Your task to perform on an android device: Turn off the flashlight Image 0: 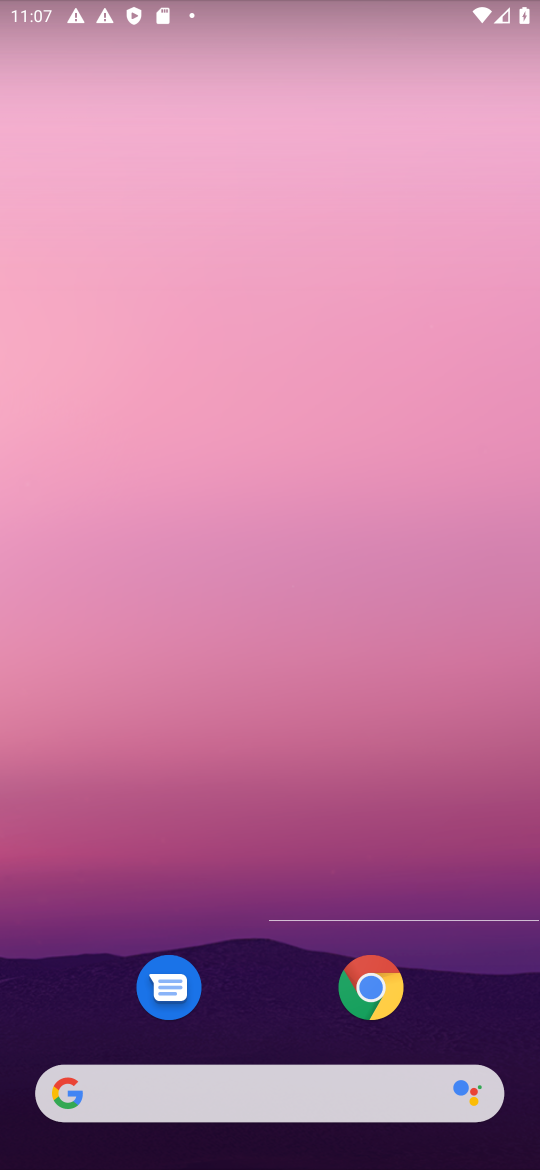
Step 0: click (227, 564)
Your task to perform on an android device: Turn off the flashlight Image 1: 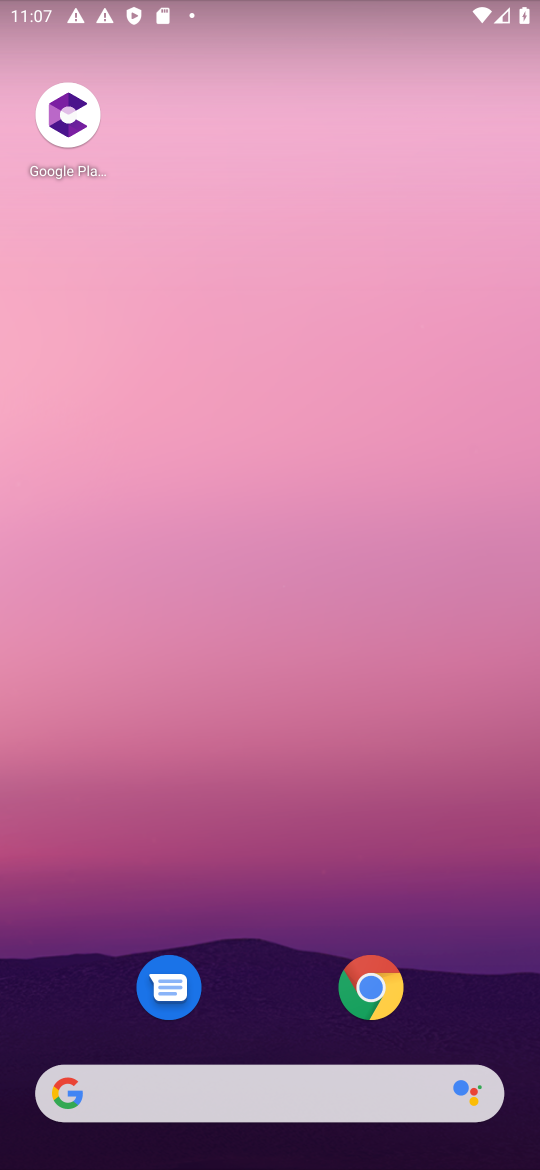
Step 1: drag from (278, 4) to (280, 629)
Your task to perform on an android device: Turn off the flashlight Image 2: 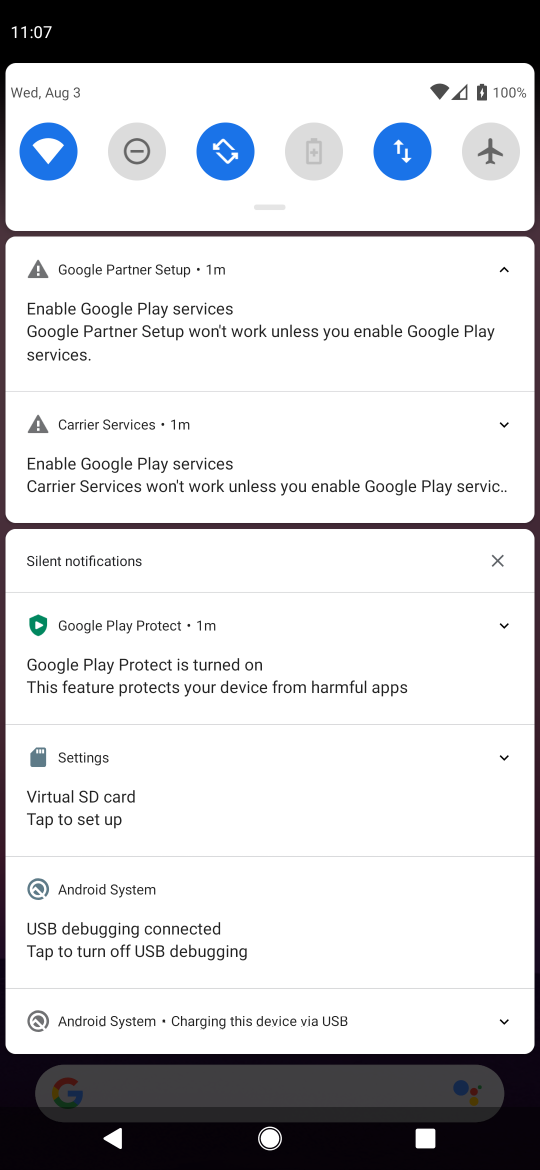
Step 2: drag from (285, 162) to (284, 780)
Your task to perform on an android device: Turn off the flashlight Image 3: 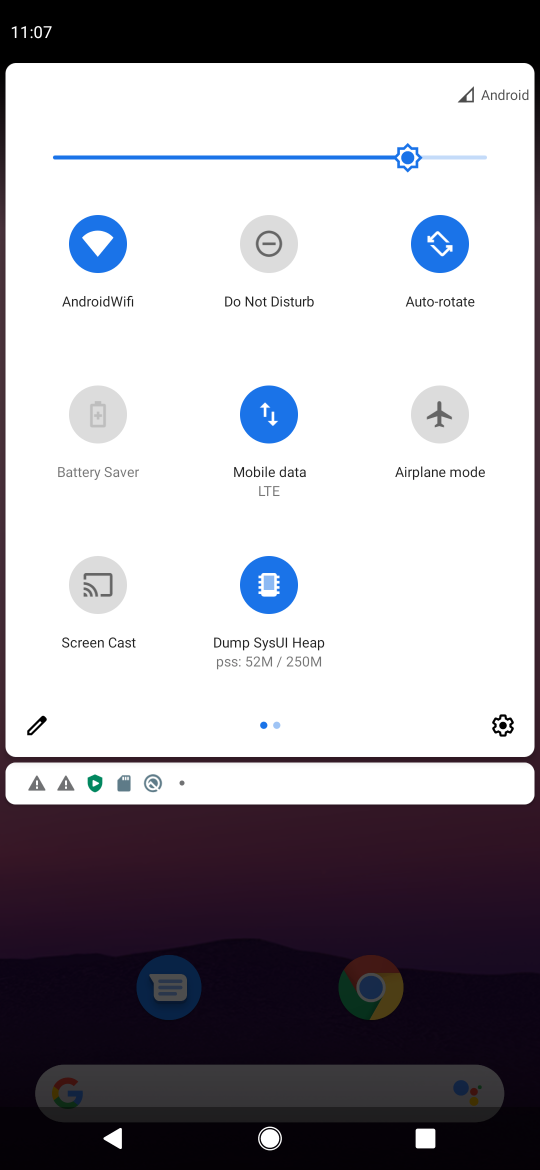
Step 3: drag from (417, 652) to (7, 643)
Your task to perform on an android device: Turn off the flashlight Image 4: 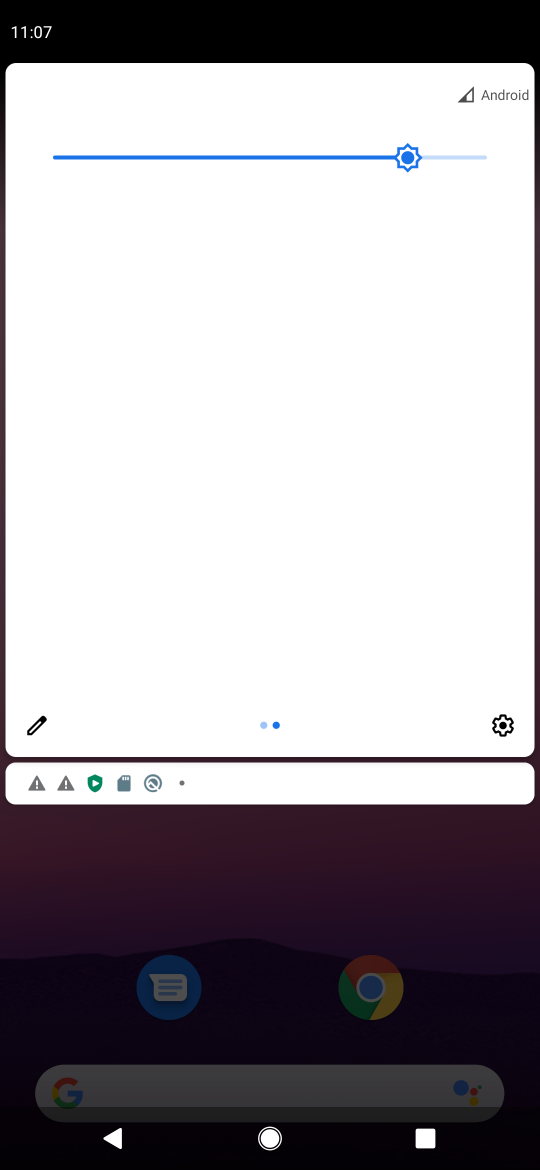
Step 4: click (37, 723)
Your task to perform on an android device: Turn off the flashlight Image 5: 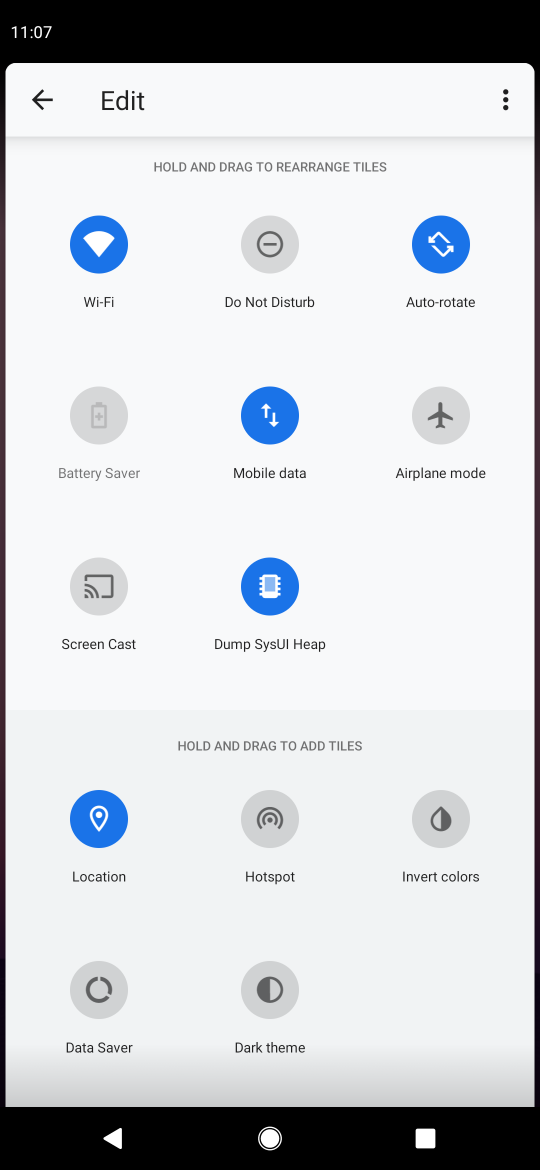
Step 5: task complete